Your task to perform on an android device: toggle notifications settings in the gmail app Image 0: 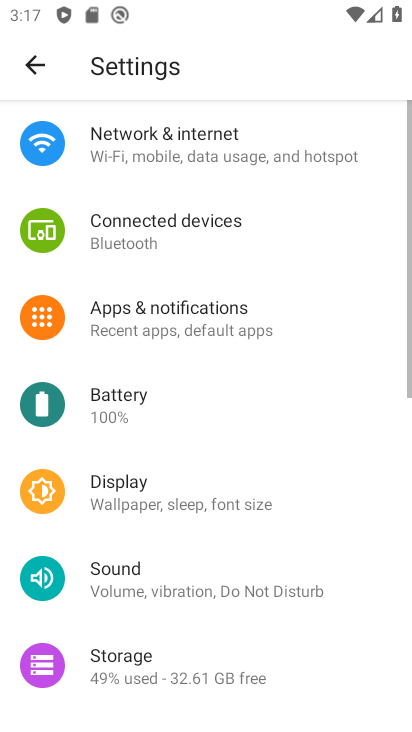
Step 0: press home button
Your task to perform on an android device: toggle notifications settings in the gmail app Image 1: 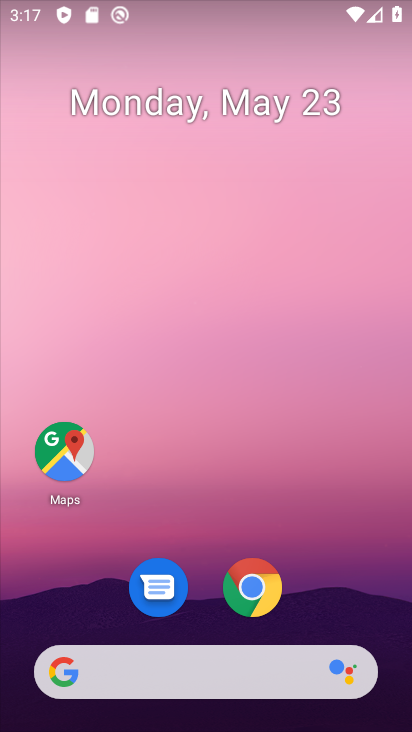
Step 1: drag from (156, 673) to (251, 150)
Your task to perform on an android device: toggle notifications settings in the gmail app Image 2: 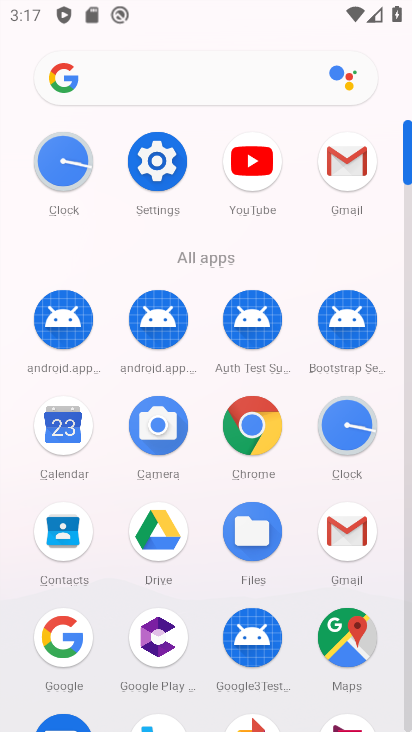
Step 2: click (346, 167)
Your task to perform on an android device: toggle notifications settings in the gmail app Image 3: 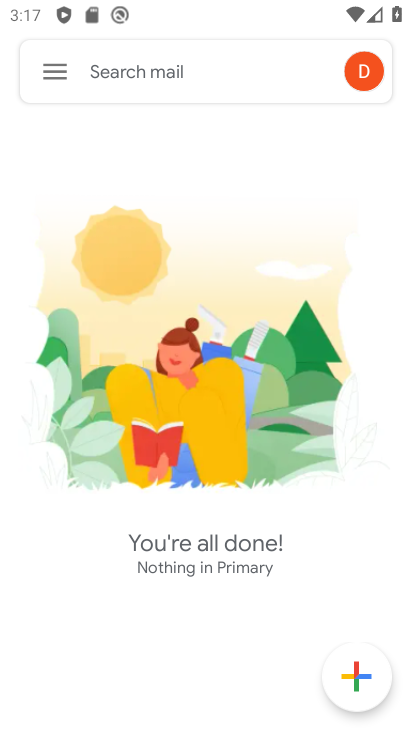
Step 3: click (52, 68)
Your task to perform on an android device: toggle notifications settings in the gmail app Image 4: 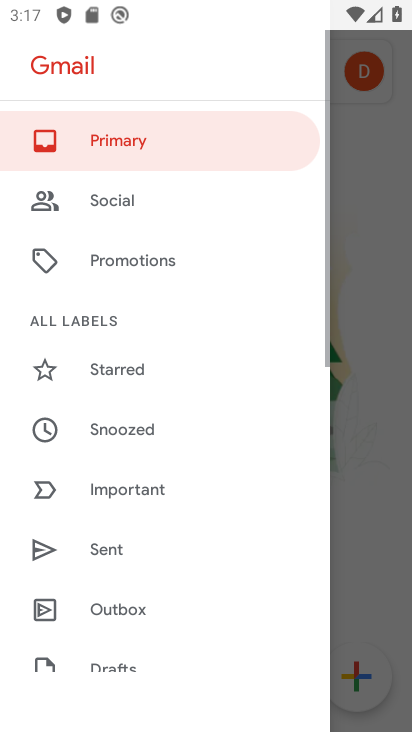
Step 4: drag from (168, 645) to (249, 129)
Your task to perform on an android device: toggle notifications settings in the gmail app Image 5: 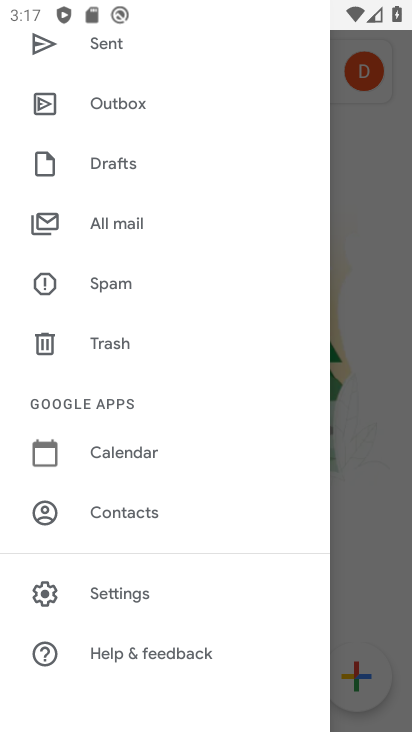
Step 5: click (134, 592)
Your task to perform on an android device: toggle notifications settings in the gmail app Image 6: 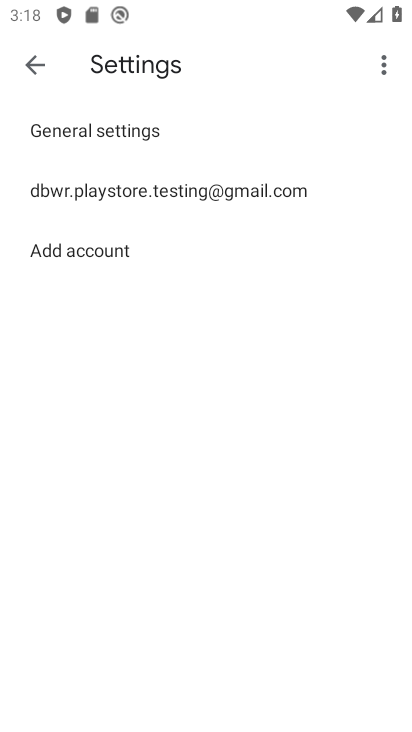
Step 6: click (228, 186)
Your task to perform on an android device: toggle notifications settings in the gmail app Image 7: 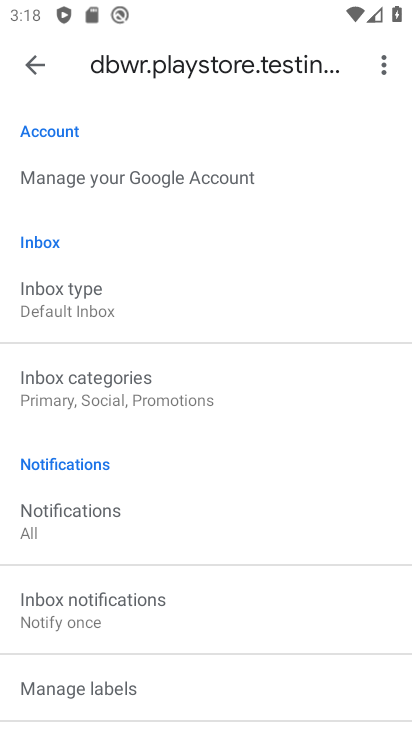
Step 7: click (88, 530)
Your task to perform on an android device: toggle notifications settings in the gmail app Image 8: 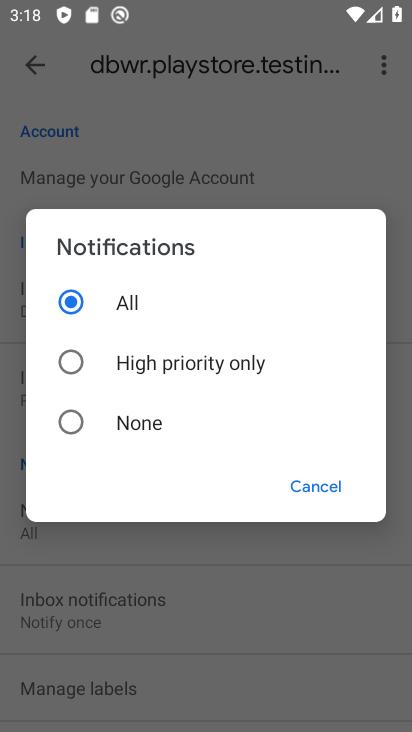
Step 8: click (73, 421)
Your task to perform on an android device: toggle notifications settings in the gmail app Image 9: 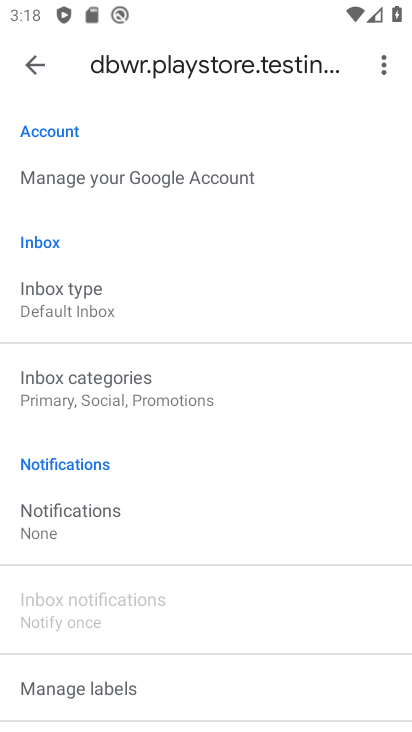
Step 9: task complete